Your task to perform on an android device: turn off data saver in the chrome app Image 0: 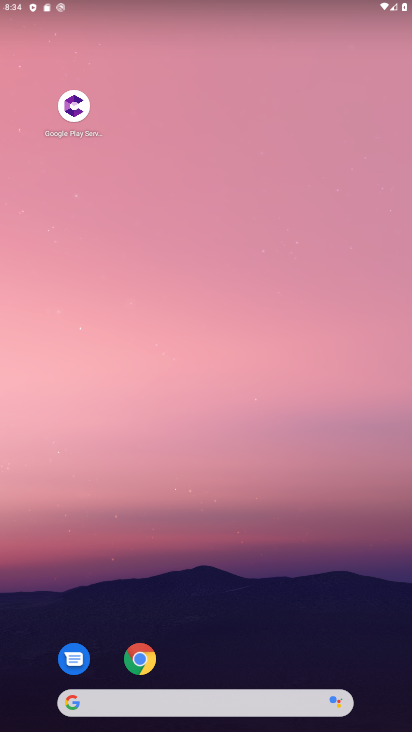
Step 0: drag from (214, 647) to (216, 168)
Your task to perform on an android device: turn off data saver in the chrome app Image 1: 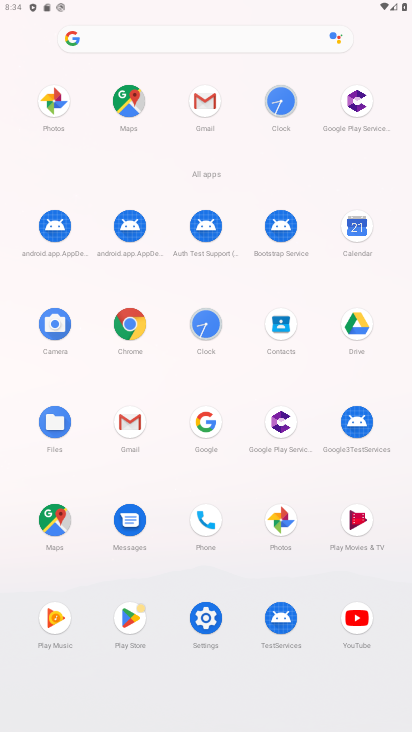
Step 1: click (131, 333)
Your task to perform on an android device: turn off data saver in the chrome app Image 2: 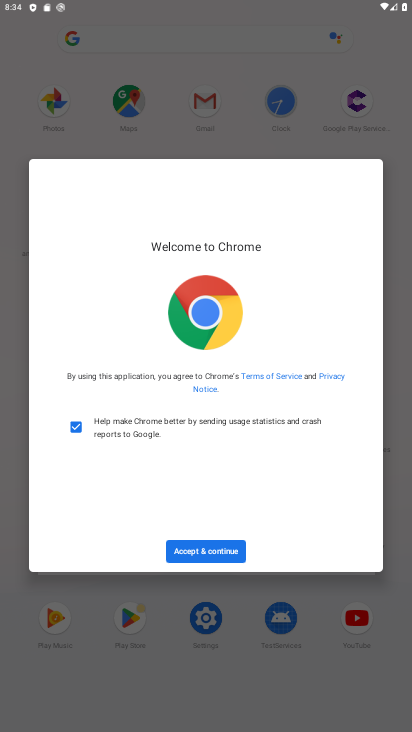
Step 2: click (215, 550)
Your task to perform on an android device: turn off data saver in the chrome app Image 3: 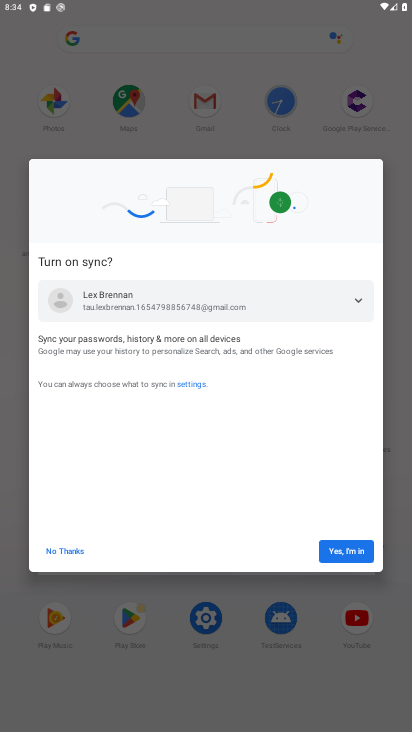
Step 3: click (358, 552)
Your task to perform on an android device: turn off data saver in the chrome app Image 4: 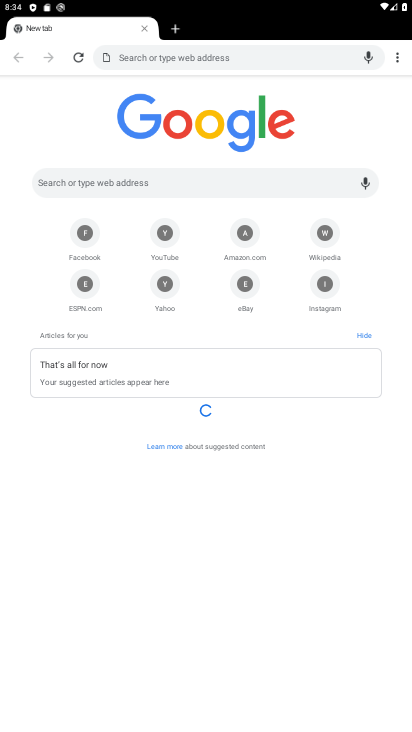
Step 4: click (396, 58)
Your task to perform on an android device: turn off data saver in the chrome app Image 5: 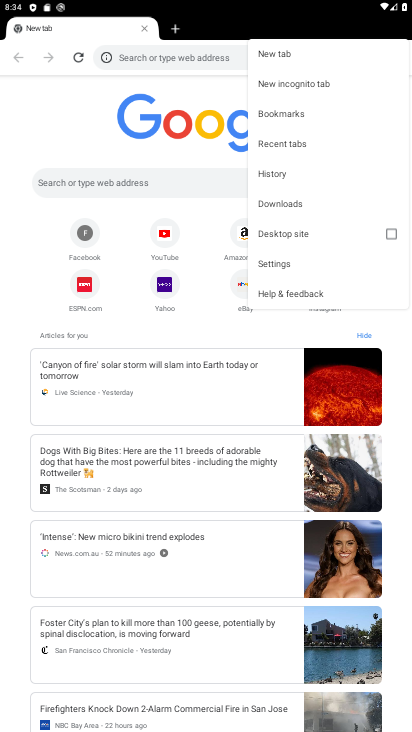
Step 5: click (280, 273)
Your task to perform on an android device: turn off data saver in the chrome app Image 6: 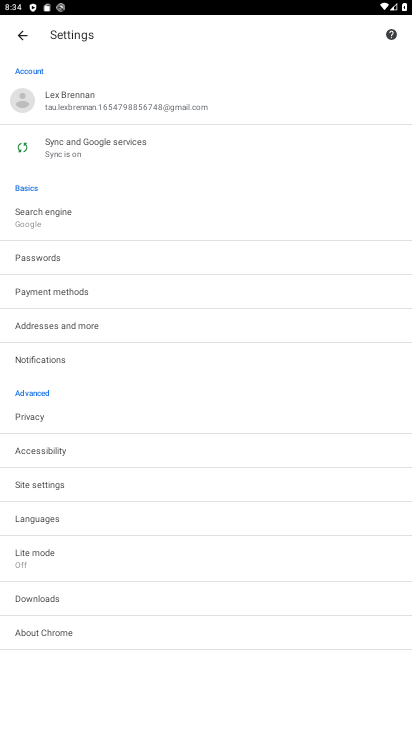
Step 6: click (102, 547)
Your task to perform on an android device: turn off data saver in the chrome app Image 7: 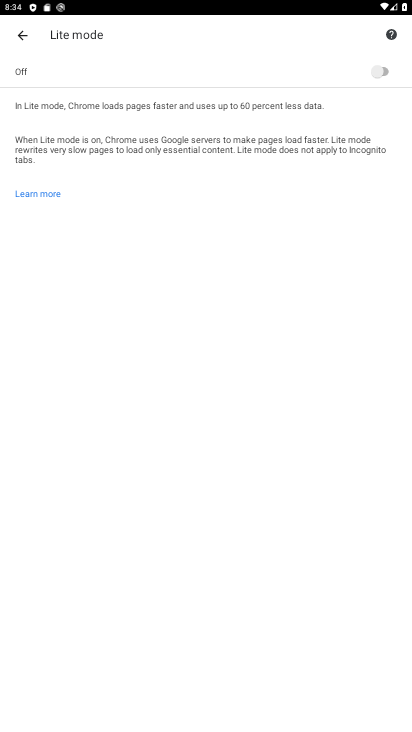
Step 7: task complete